Your task to perform on an android device: open a bookmark in the chrome app Image 0: 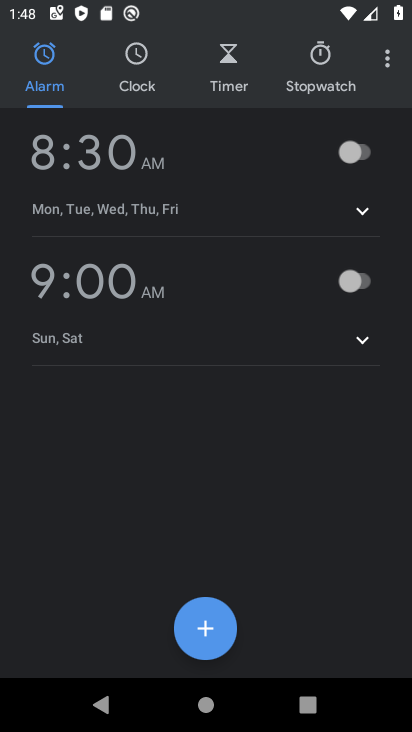
Step 0: press home button
Your task to perform on an android device: open a bookmark in the chrome app Image 1: 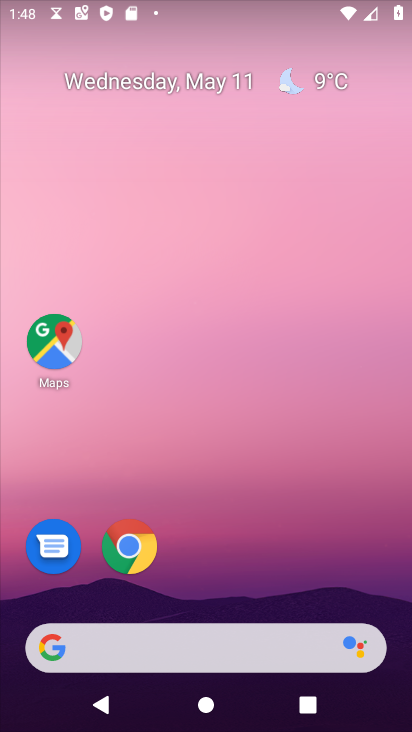
Step 1: drag from (292, 596) to (293, 106)
Your task to perform on an android device: open a bookmark in the chrome app Image 2: 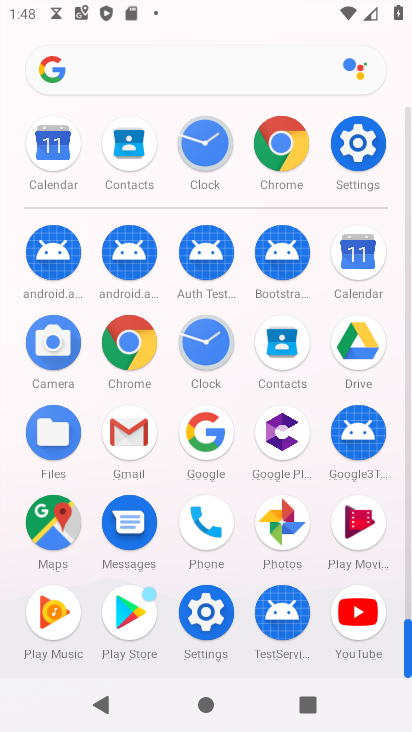
Step 2: click (139, 348)
Your task to perform on an android device: open a bookmark in the chrome app Image 3: 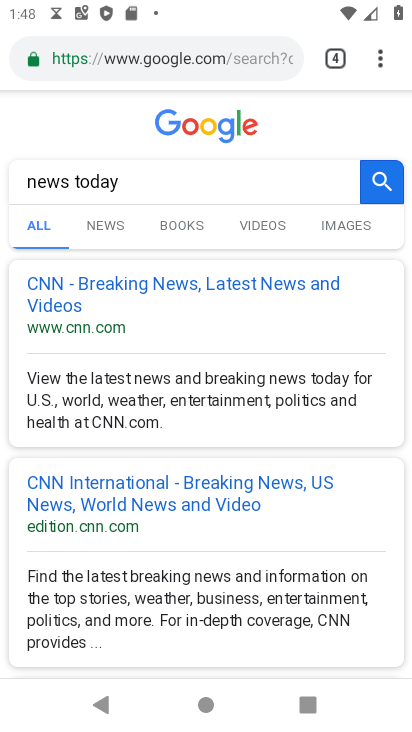
Step 3: click (371, 58)
Your task to perform on an android device: open a bookmark in the chrome app Image 4: 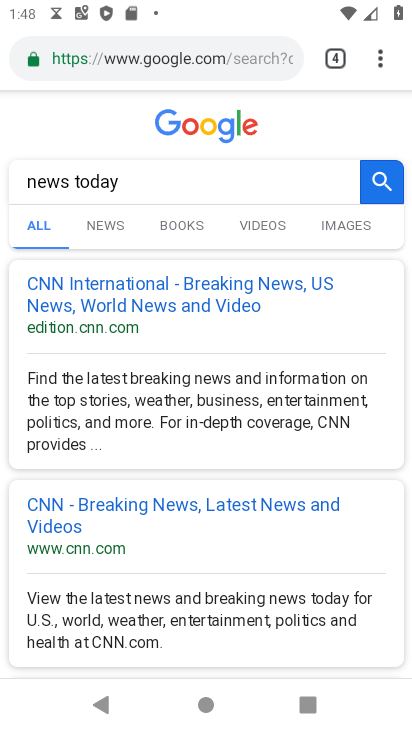
Step 4: drag from (366, 94) to (300, 280)
Your task to perform on an android device: open a bookmark in the chrome app Image 5: 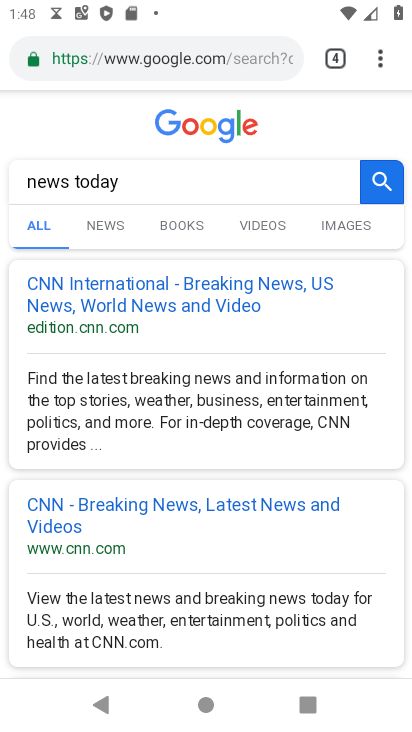
Step 5: click (382, 59)
Your task to perform on an android device: open a bookmark in the chrome app Image 6: 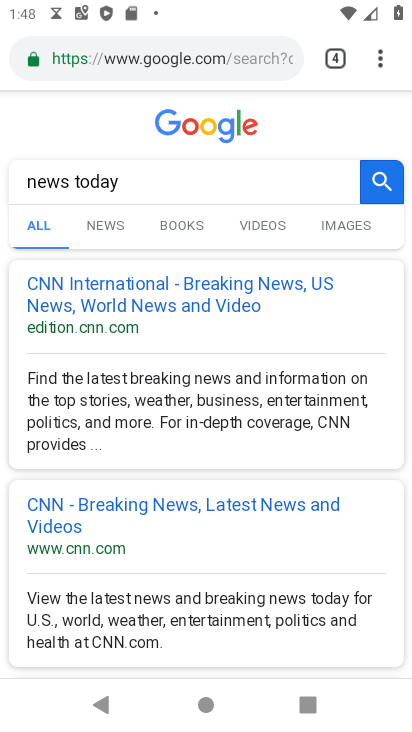
Step 6: task complete